Your task to perform on an android device: create a new album in the google photos Image 0: 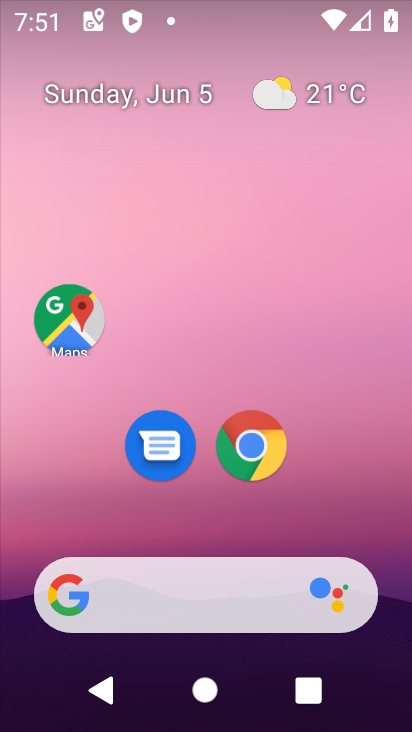
Step 0: drag from (336, 376) to (327, 141)
Your task to perform on an android device: create a new album in the google photos Image 1: 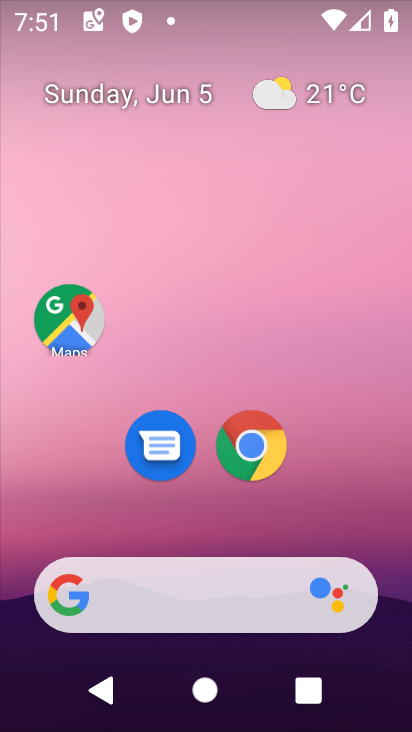
Step 1: drag from (343, 426) to (344, 165)
Your task to perform on an android device: create a new album in the google photos Image 2: 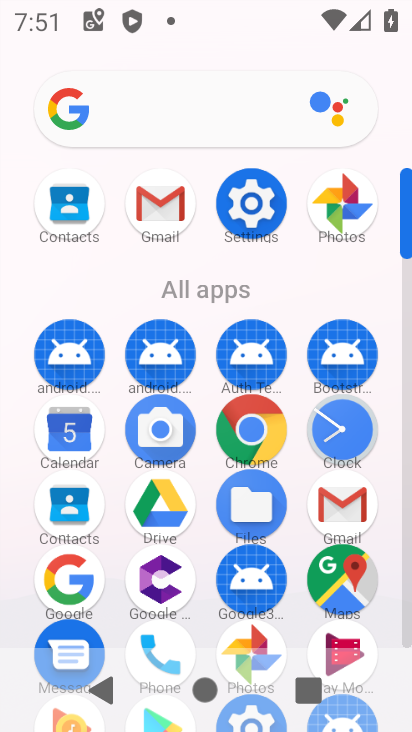
Step 2: click (339, 192)
Your task to perform on an android device: create a new album in the google photos Image 3: 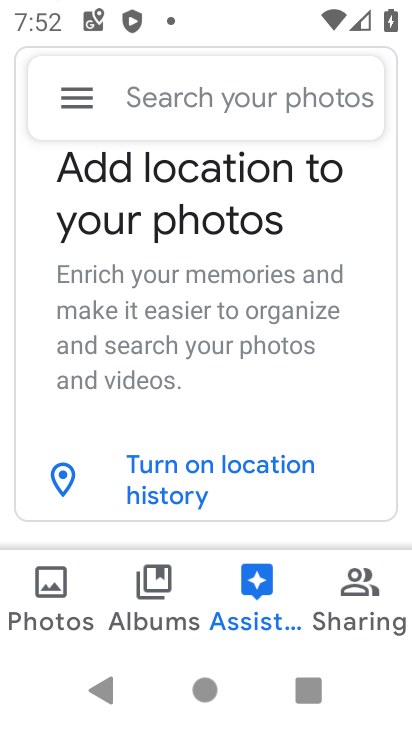
Step 3: click (53, 597)
Your task to perform on an android device: create a new album in the google photos Image 4: 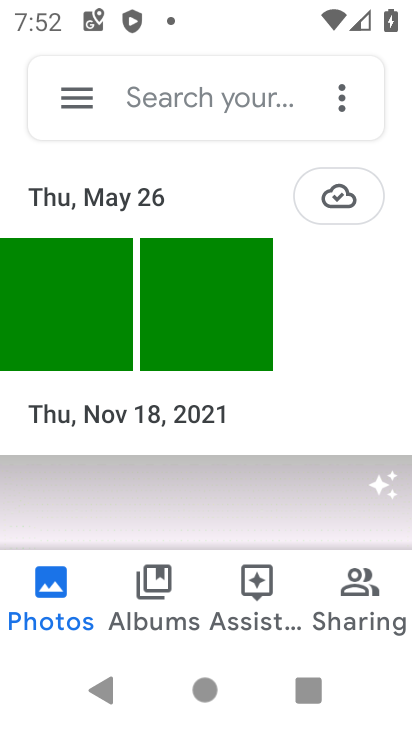
Step 4: click (76, 324)
Your task to perform on an android device: create a new album in the google photos Image 5: 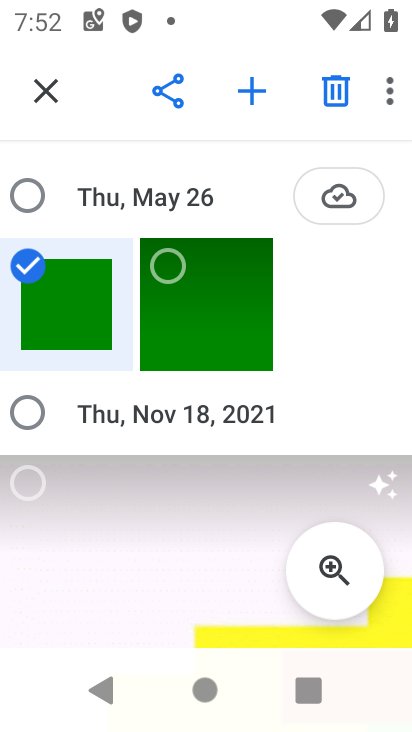
Step 5: click (215, 308)
Your task to perform on an android device: create a new album in the google photos Image 6: 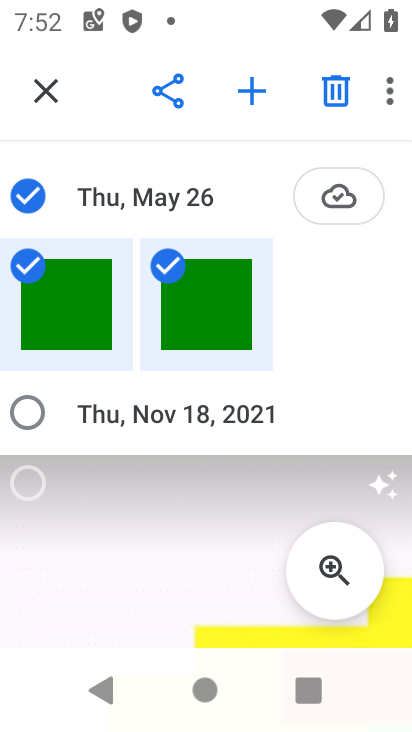
Step 6: click (258, 93)
Your task to perform on an android device: create a new album in the google photos Image 7: 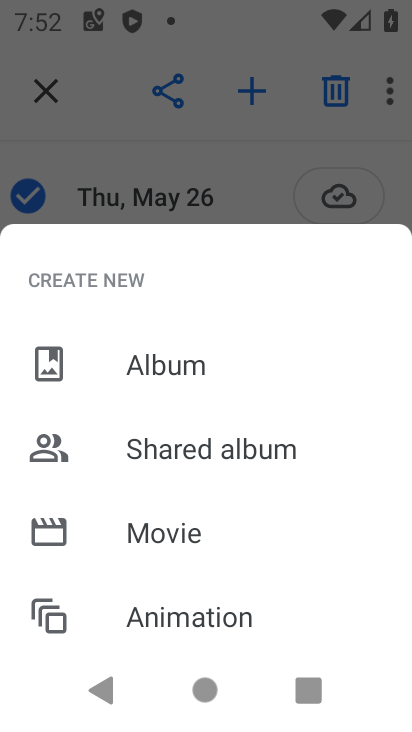
Step 7: click (150, 359)
Your task to perform on an android device: create a new album in the google photos Image 8: 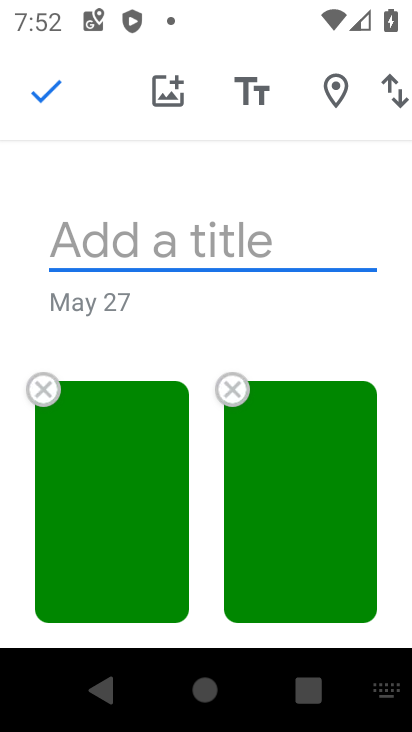
Step 8: type "tyfyf"
Your task to perform on an android device: create a new album in the google photos Image 9: 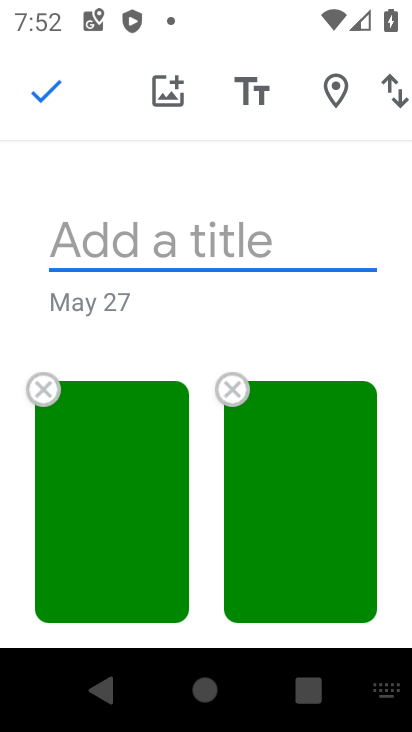
Step 9: click (183, 223)
Your task to perform on an android device: create a new album in the google photos Image 10: 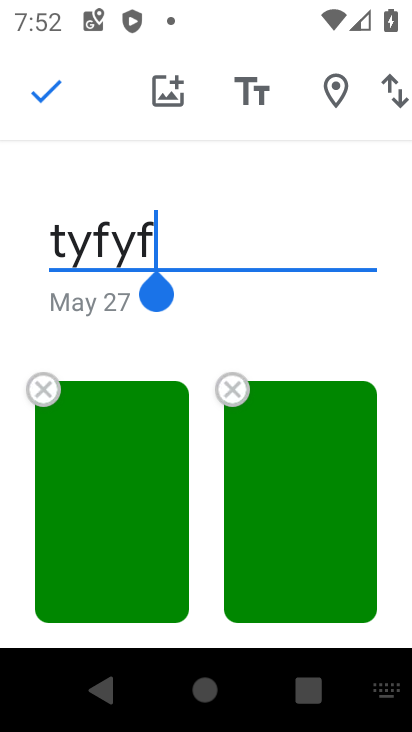
Step 10: click (64, 88)
Your task to perform on an android device: create a new album in the google photos Image 11: 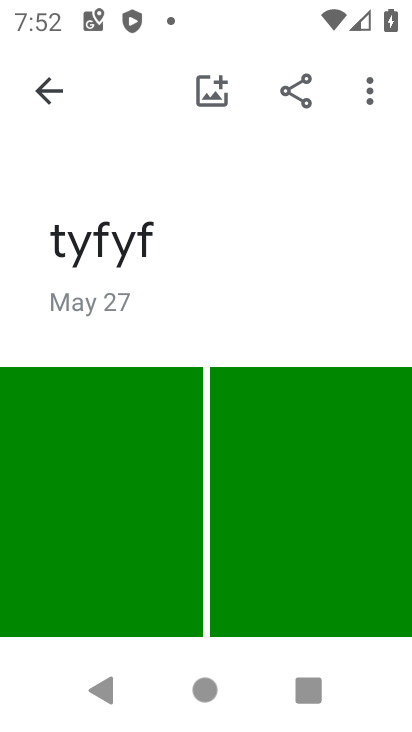
Step 11: task complete